Your task to perform on an android device: toggle priority inbox in the gmail app Image 0: 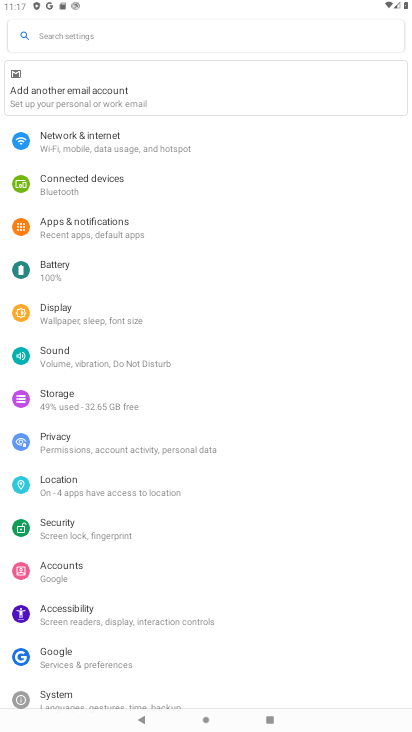
Step 0: press home button
Your task to perform on an android device: toggle priority inbox in the gmail app Image 1: 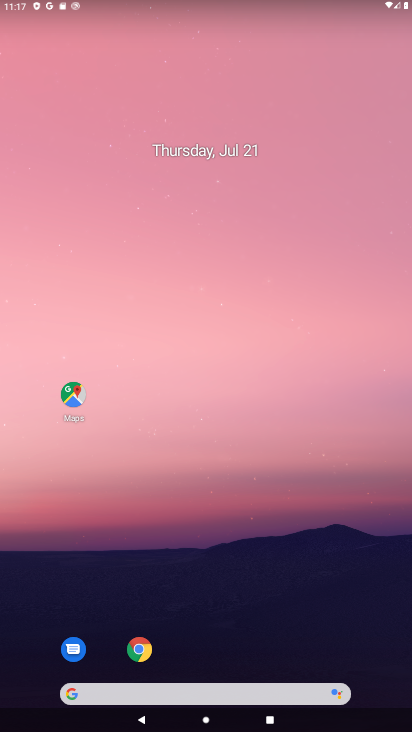
Step 1: drag from (236, 725) to (231, 125)
Your task to perform on an android device: toggle priority inbox in the gmail app Image 2: 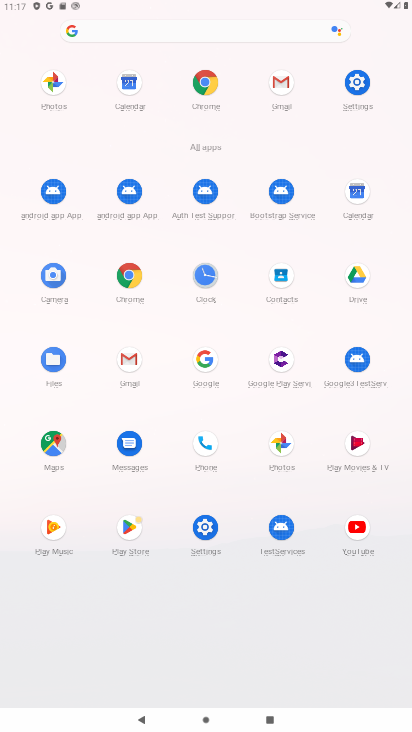
Step 2: click (124, 360)
Your task to perform on an android device: toggle priority inbox in the gmail app Image 3: 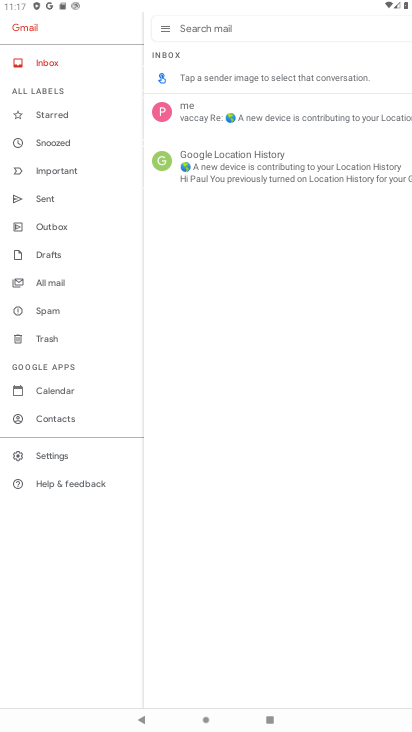
Step 3: click (56, 452)
Your task to perform on an android device: toggle priority inbox in the gmail app Image 4: 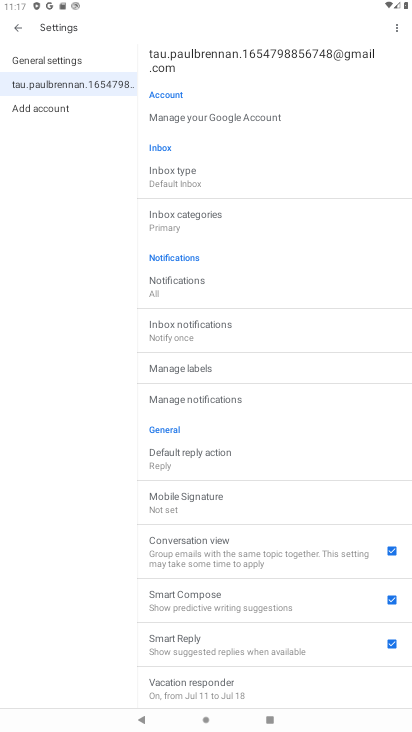
Step 4: click (169, 173)
Your task to perform on an android device: toggle priority inbox in the gmail app Image 5: 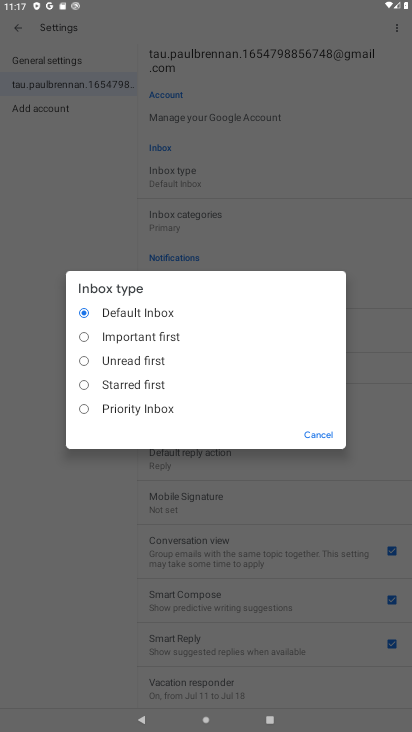
Step 5: click (81, 406)
Your task to perform on an android device: toggle priority inbox in the gmail app Image 6: 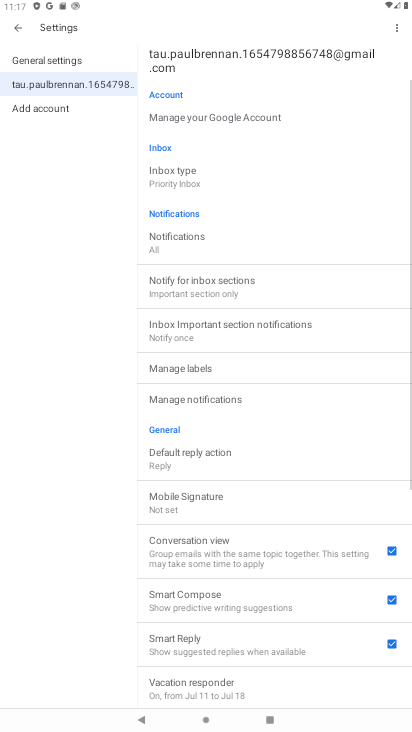
Step 6: task complete